Your task to perform on an android device: set the timer Image 0: 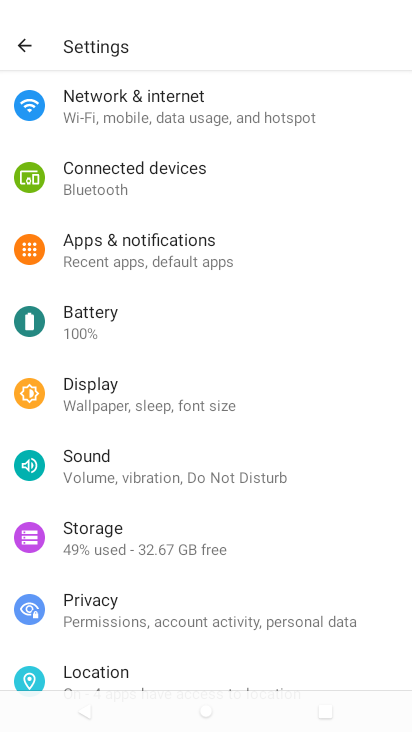
Step 0: press home button
Your task to perform on an android device: set the timer Image 1: 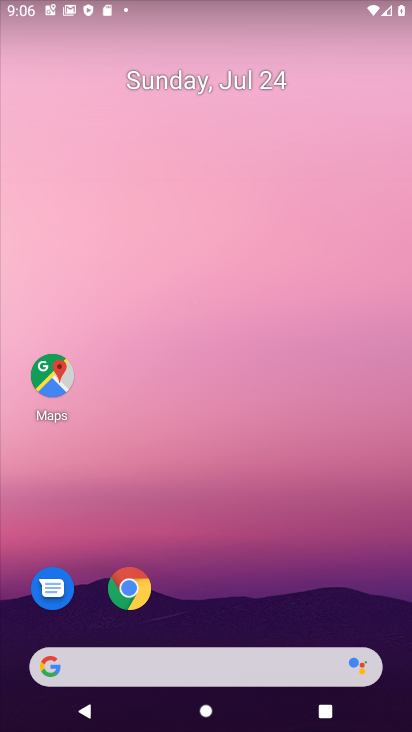
Step 1: drag from (229, 642) to (265, 0)
Your task to perform on an android device: set the timer Image 2: 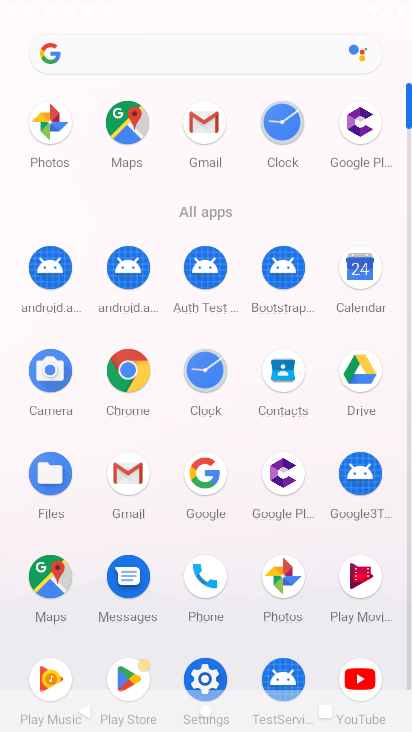
Step 2: click (204, 374)
Your task to perform on an android device: set the timer Image 3: 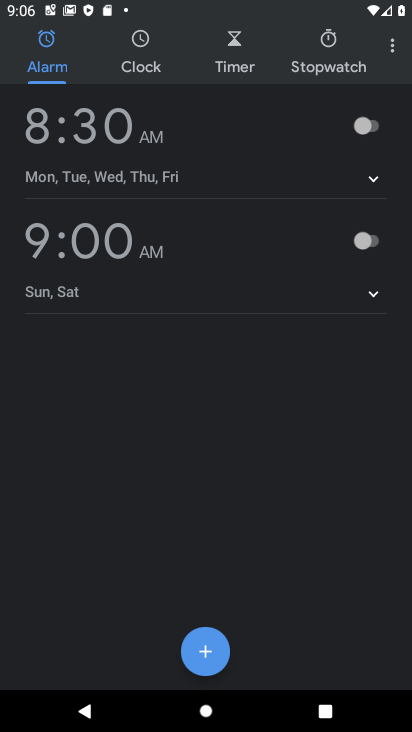
Step 3: click (232, 53)
Your task to perform on an android device: set the timer Image 4: 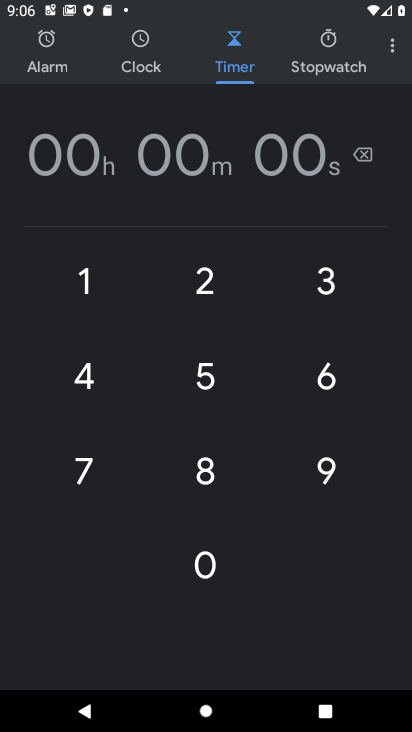
Step 4: click (87, 375)
Your task to perform on an android device: set the timer Image 5: 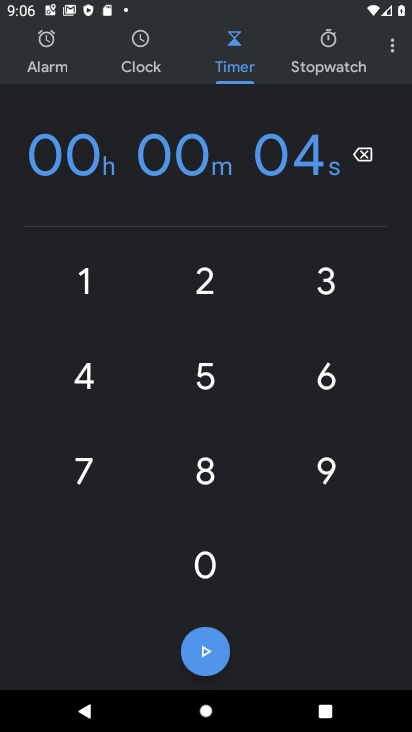
Step 5: click (200, 384)
Your task to perform on an android device: set the timer Image 6: 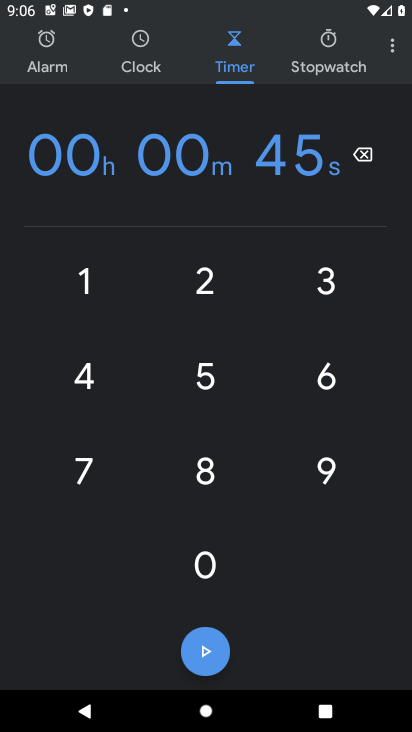
Step 6: click (201, 646)
Your task to perform on an android device: set the timer Image 7: 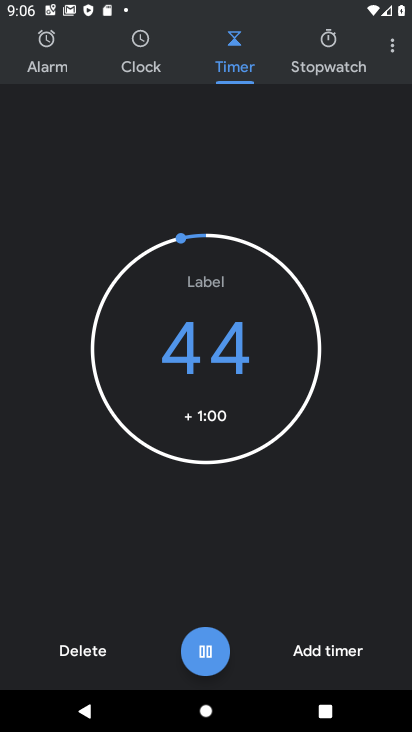
Step 7: task complete